Your task to perform on an android device: clear all cookies in the chrome app Image 0: 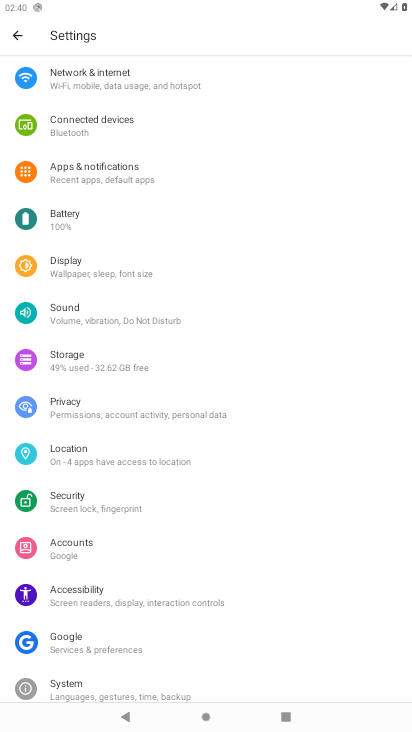
Step 0: press home button
Your task to perform on an android device: clear all cookies in the chrome app Image 1: 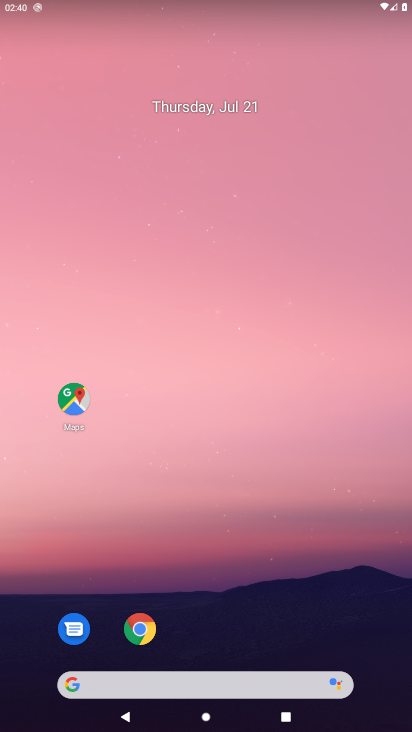
Step 1: click (153, 634)
Your task to perform on an android device: clear all cookies in the chrome app Image 2: 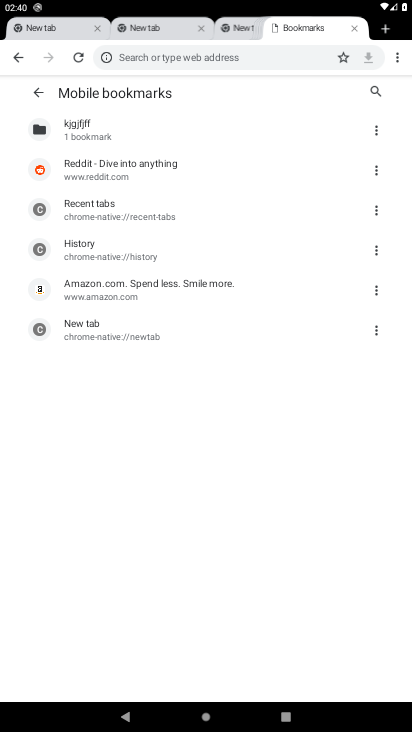
Step 2: click (402, 60)
Your task to perform on an android device: clear all cookies in the chrome app Image 3: 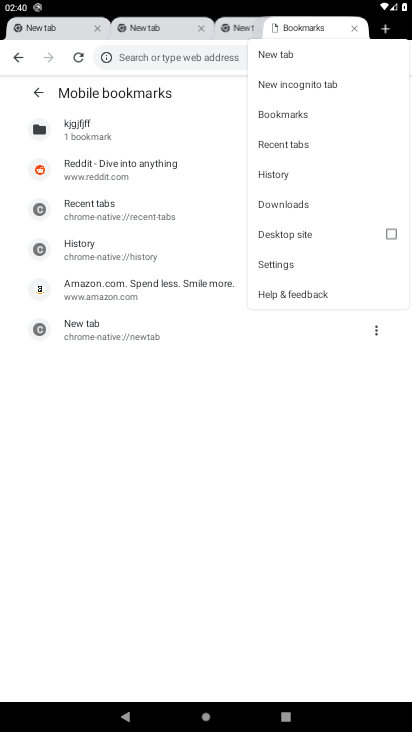
Step 3: click (266, 177)
Your task to perform on an android device: clear all cookies in the chrome app Image 4: 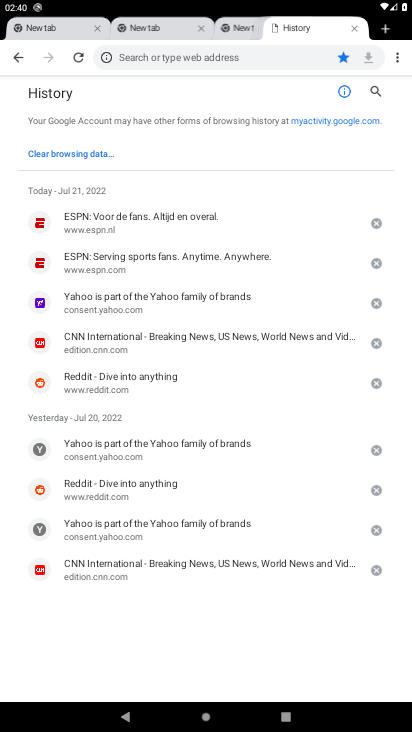
Step 4: click (49, 148)
Your task to perform on an android device: clear all cookies in the chrome app Image 5: 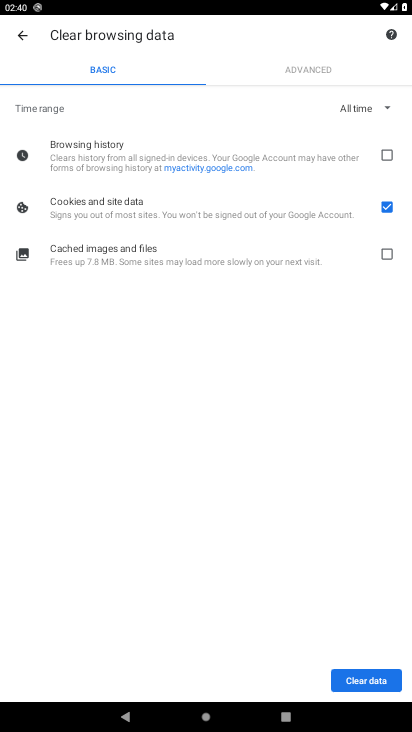
Step 5: click (383, 680)
Your task to perform on an android device: clear all cookies in the chrome app Image 6: 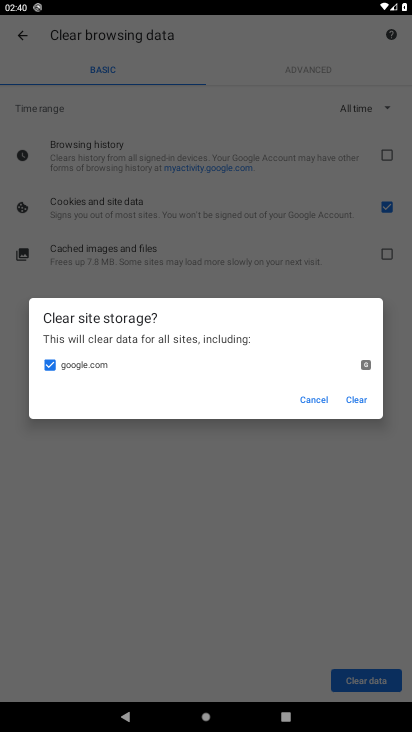
Step 6: click (352, 398)
Your task to perform on an android device: clear all cookies in the chrome app Image 7: 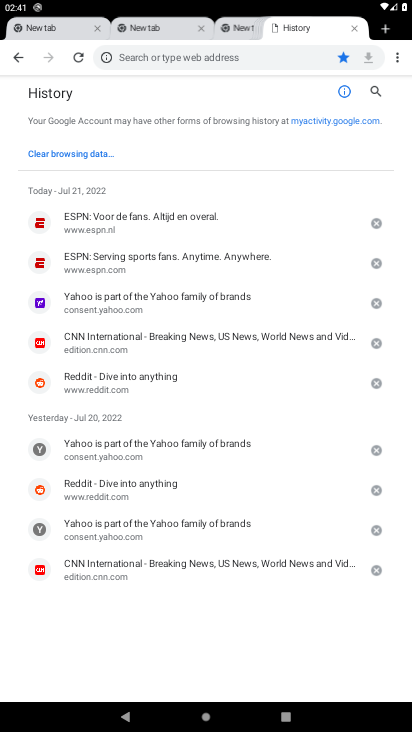
Step 7: task complete